Your task to perform on an android device: check the backup settings in the google photos Image 0: 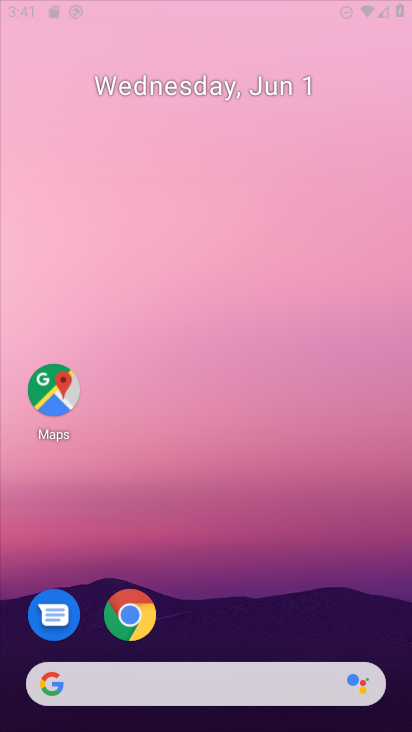
Step 0: press home button
Your task to perform on an android device: check the backup settings in the google photos Image 1: 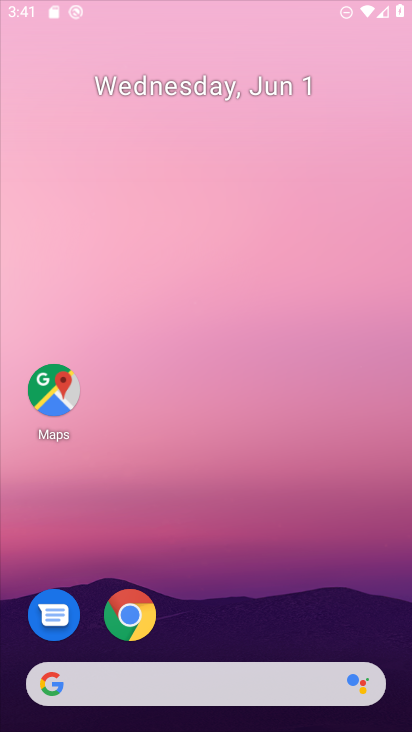
Step 1: drag from (215, 642) to (221, 37)
Your task to perform on an android device: check the backup settings in the google photos Image 2: 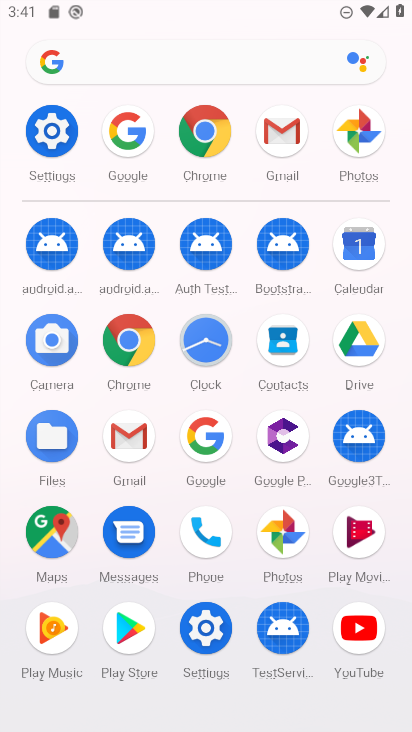
Step 2: click (282, 524)
Your task to perform on an android device: check the backup settings in the google photos Image 3: 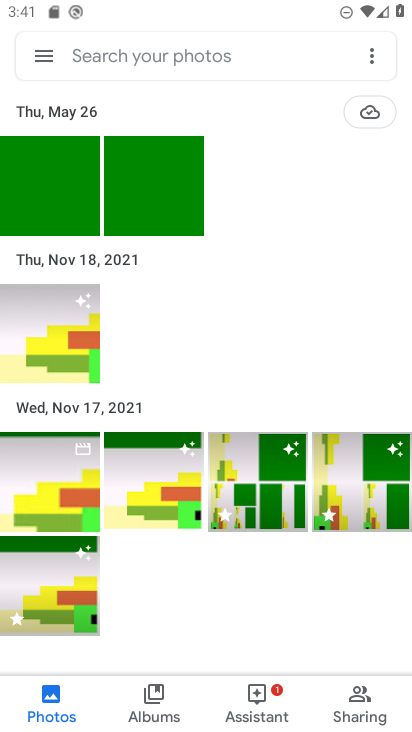
Step 3: click (44, 53)
Your task to perform on an android device: check the backup settings in the google photos Image 4: 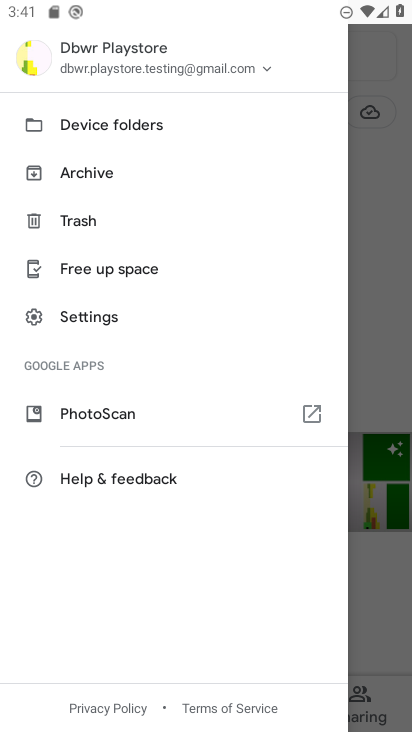
Step 4: click (127, 313)
Your task to perform on an android device: check the backup settings in the google photos Image 5: 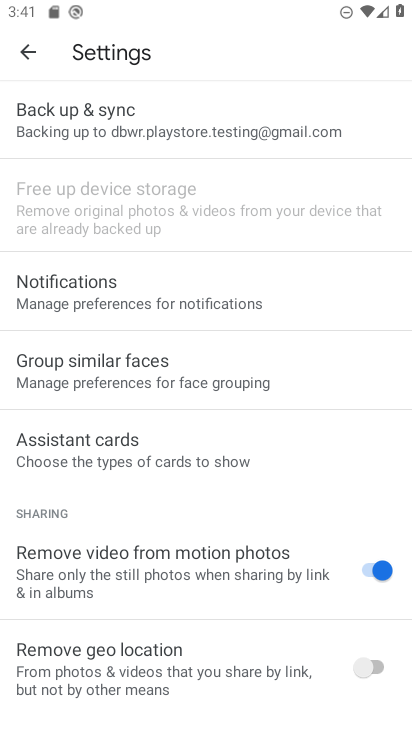
Step 5: click (143, 106)
Your task to perform on an android device: check the backup settings in the google photos Image 6: 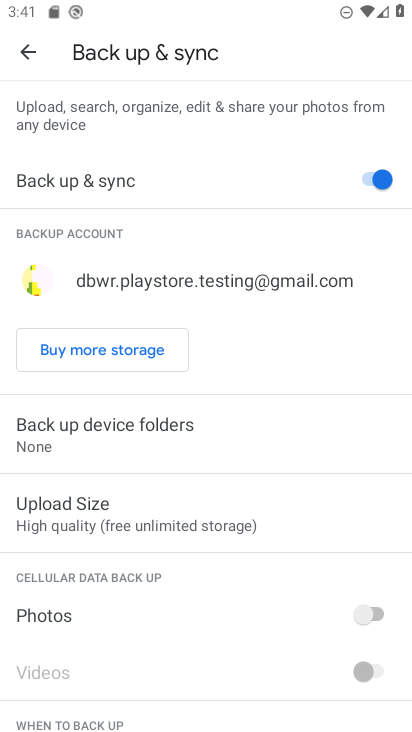
Step 6: task complete